Your task to perform on an android device: turn off improve location accuracy Image 0: 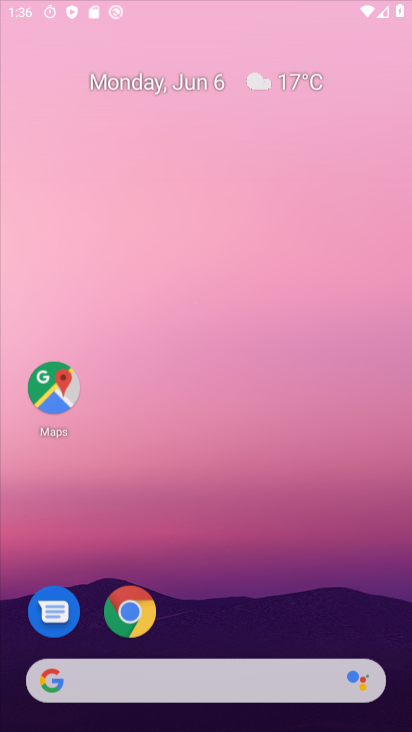
Step 0: click (164, 47)
Your task to perform on an android device: turn off improve location accuracy Image 1: 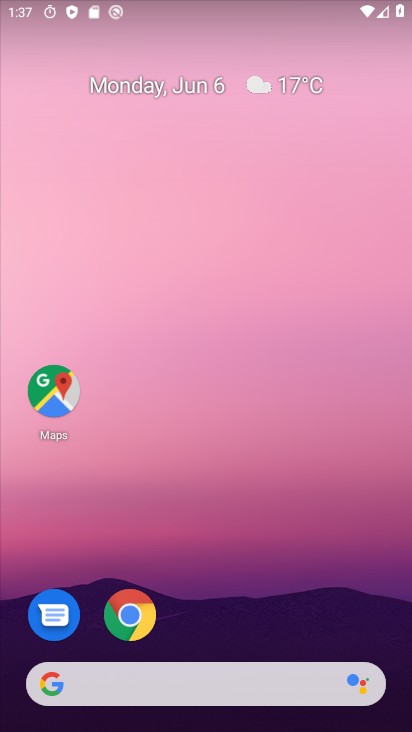
Step 1: drag from (209, 606) to (174, 6)
Your task to perform on an android device: turn off improve location accuracy Image 2: 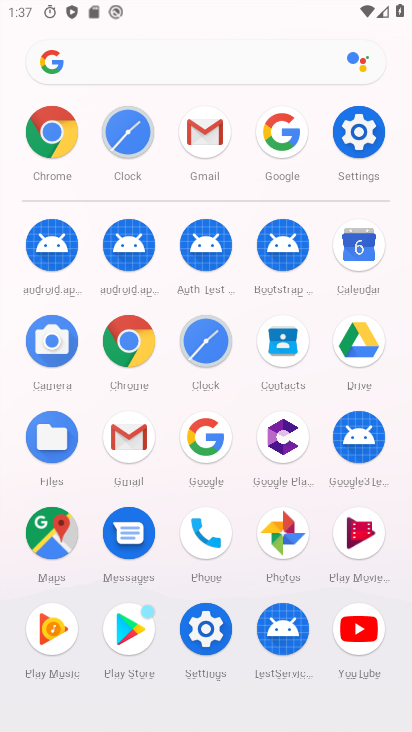
Step 2: click (355, 127)
Your task to perform on an android device: turn off improve location accuracy Image 3: 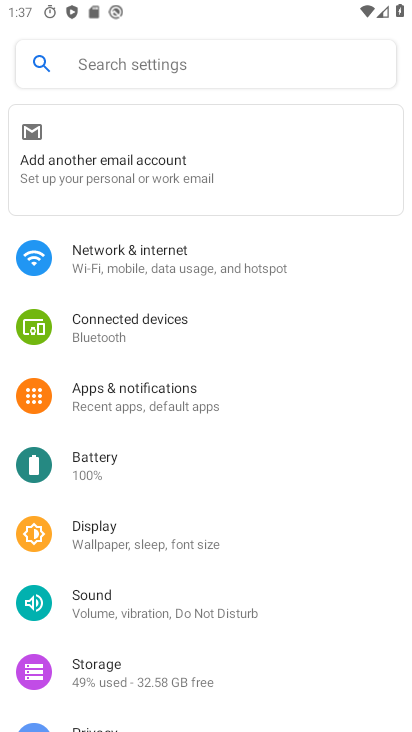
Step 3: drag from (175, 609) to (214, 143)
Your task to perform on an android device: turn off improve location accuracy Image 4: 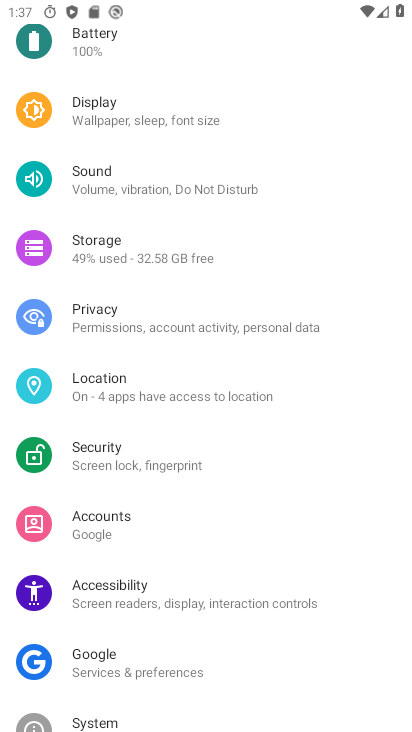
Step 4: drag from (187, 675) to (228, 332)
Your task to perform on an android device: turn off improve location accuracy Image 5: 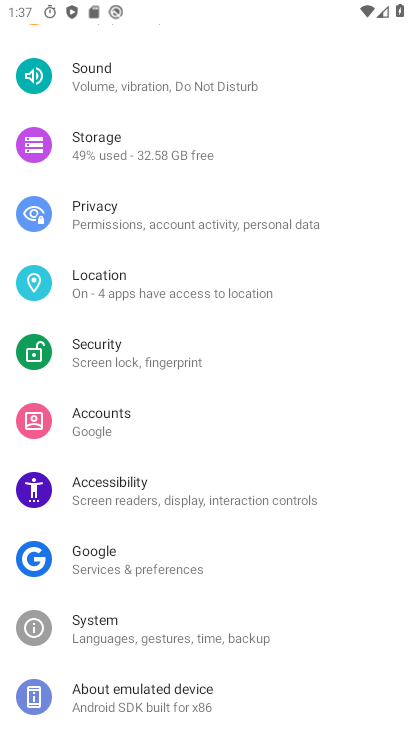
Step 5: drag from (166, 658) to (170, 293)
Your task to perform on an android device: turn off improve location accuracy Image 6: 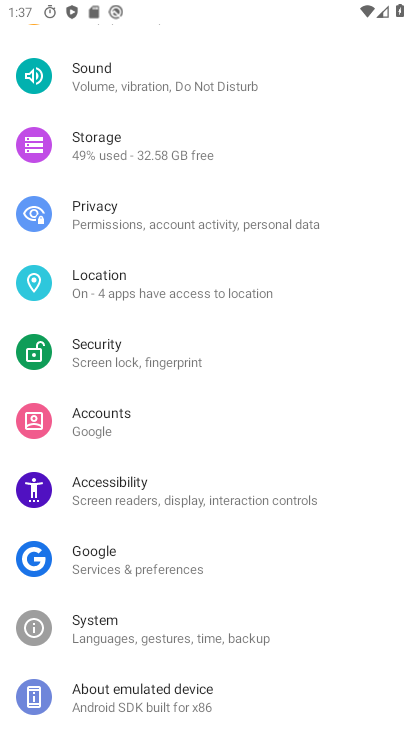
Step 6: click (155, 288)
Your task to perform on an android device: turn off improve location accuracy Image 7: 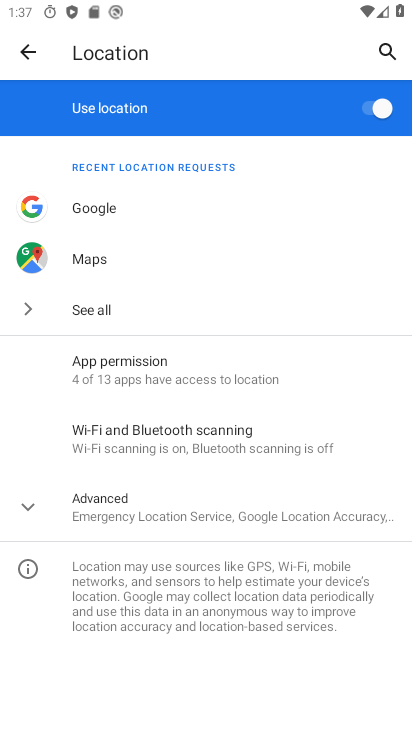
Step 7: click (101, 498)
Your task to perform on an android device: turn off improve location accuracy Image 8: 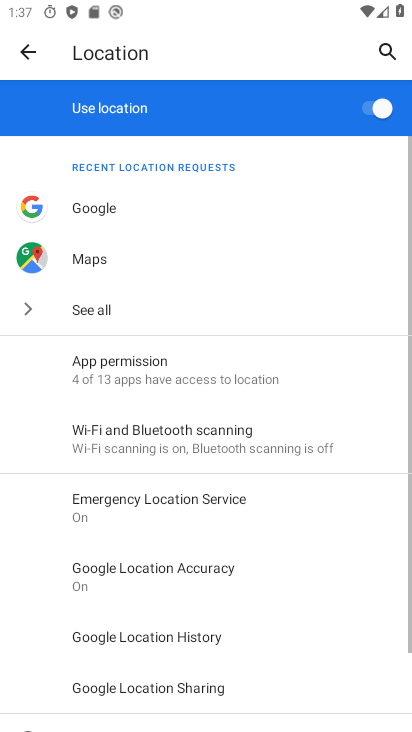
Step 8: drag from (229, 532) to (264, 263)
Your task to perform on an android device: turn off improve location accuracy Image 9: 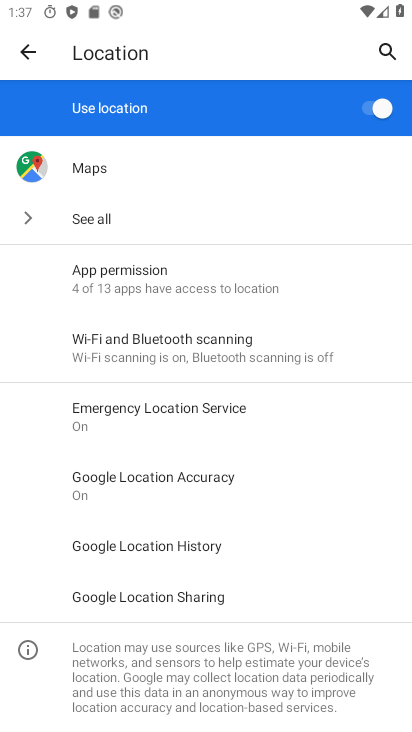
Step 9: click (178, 487)
Your task to perform on an android device: turn off improve location accuracy Image 10: 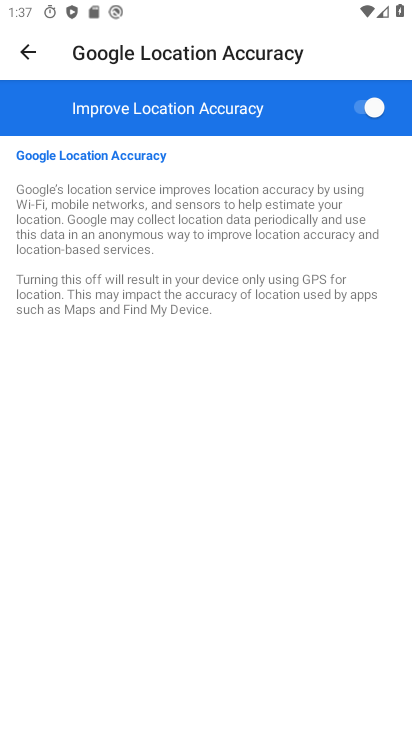
Step 10: drag from (277, 537) to (281, 182)
Your task to perform on an android device: turn off improve location accuracy Image 11: 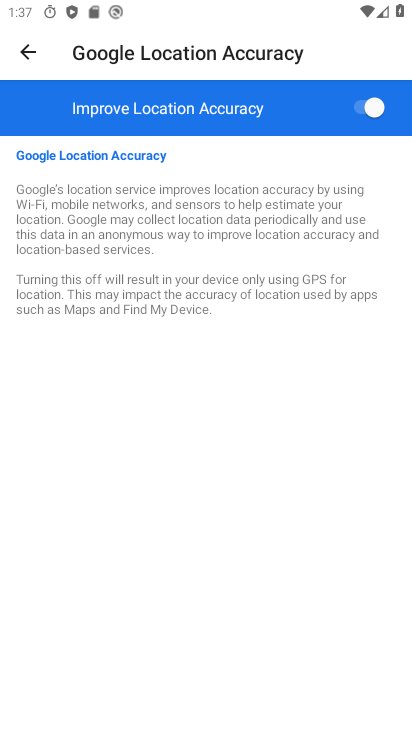
Step 11: click (377, 118)
Your task to perform on an android device: turn off improve location accuracy Image 12: 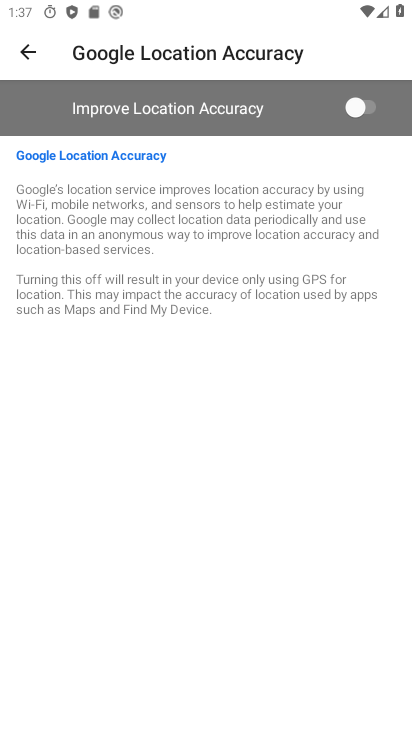
Step 12: task complete